Your task to perform on an android device: Open Chrome and go to the settings page Image 0: 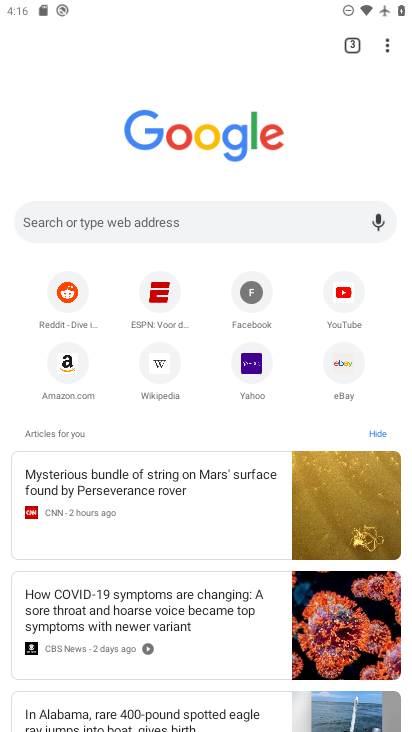
Step 0: drag from (384, 45) to (222, 388)
Your task to perform on an android device: Open Chrome and go to the settings page Image 1: 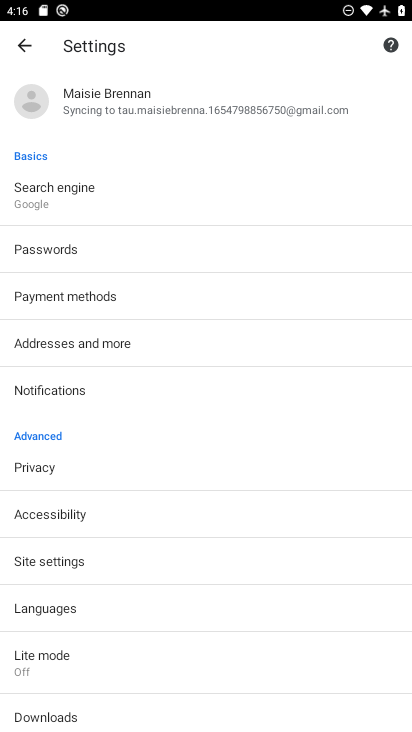
Step 1: task complete